Your task to perform on an android device: set the stopwatch Image 0: 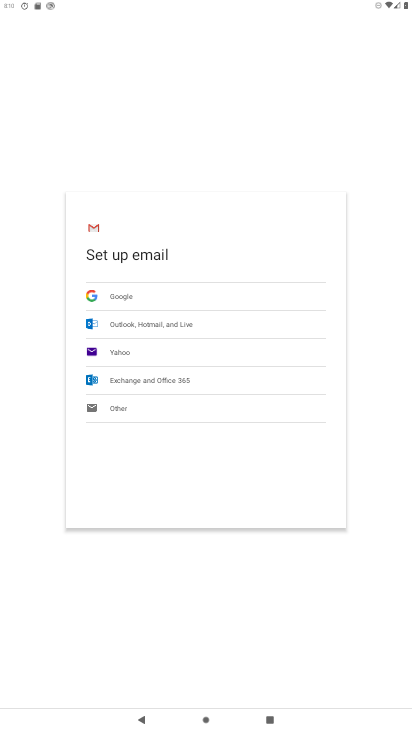
Step 0: press home button
Your task to perform on an android device: set the stopwatch Image 1: 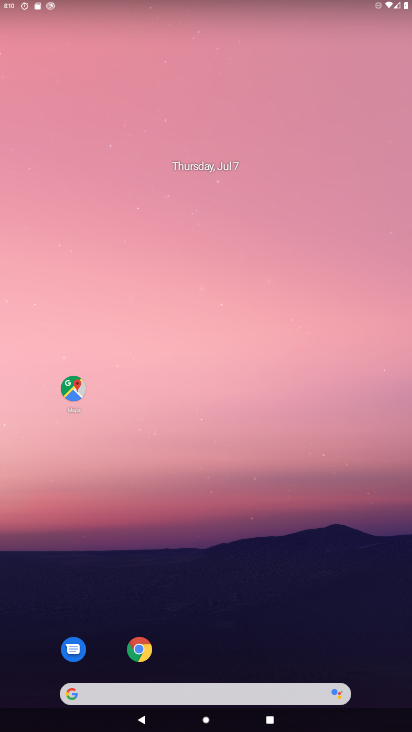
Step 1: drag from (199, 658) to (231, 89)
Your task to perform on an android device: set the stopwatch Image 2: 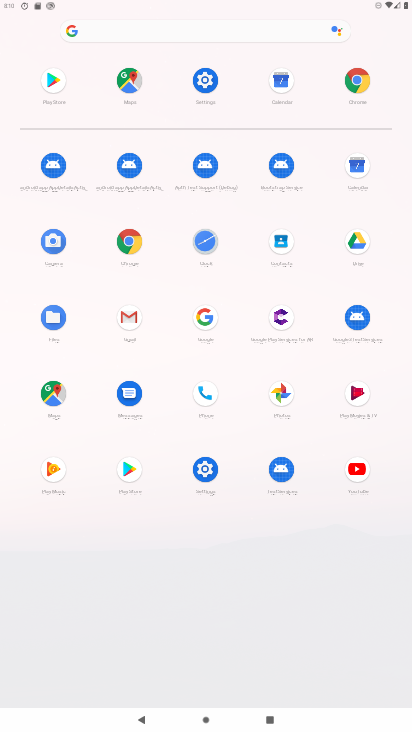
Step 2: click (206, 235)
Your task to perform on an android device: set the stopwatch Image 3: 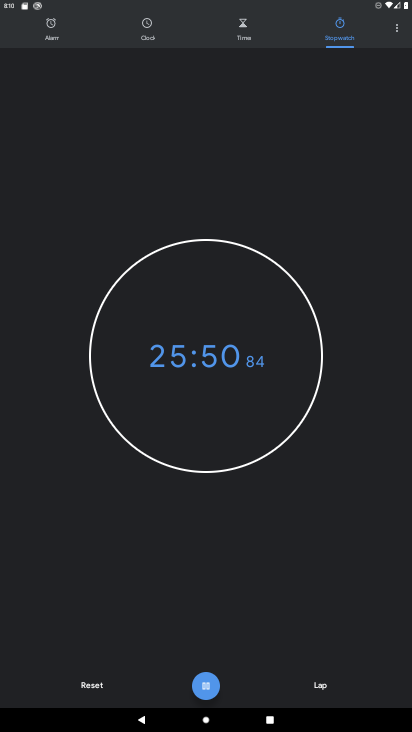
Step 3: click (83, 687)
Your task to perform on an android device: set the stopwatch Image 4: 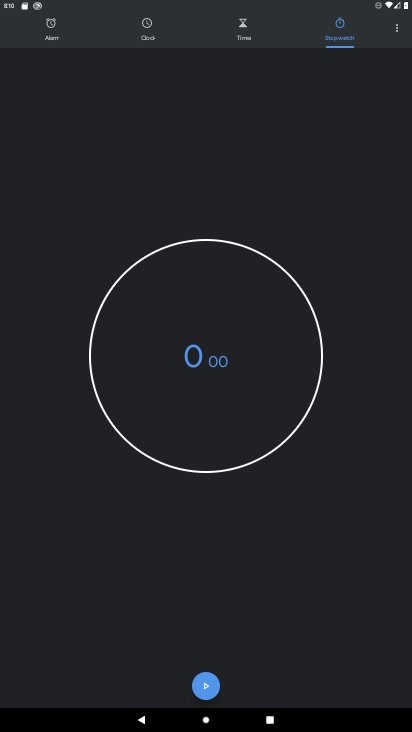
Step 4: click (212, 682)
Your task to perform on an android device: set the stopwatch Image 5: 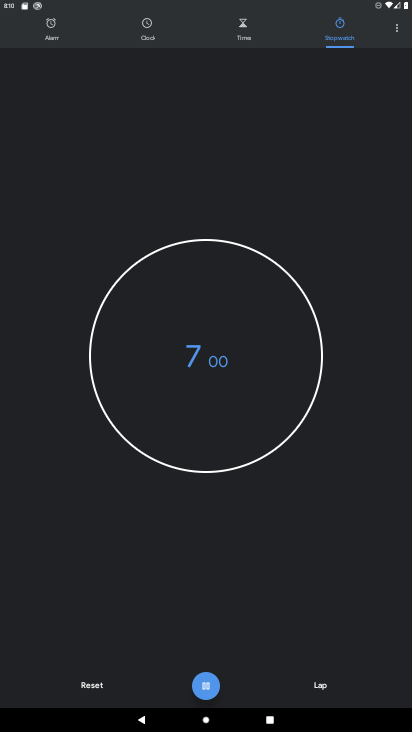
Step 5: task complete